Your task to perform on an android device: toggle javascript in the chrome app Image 0: 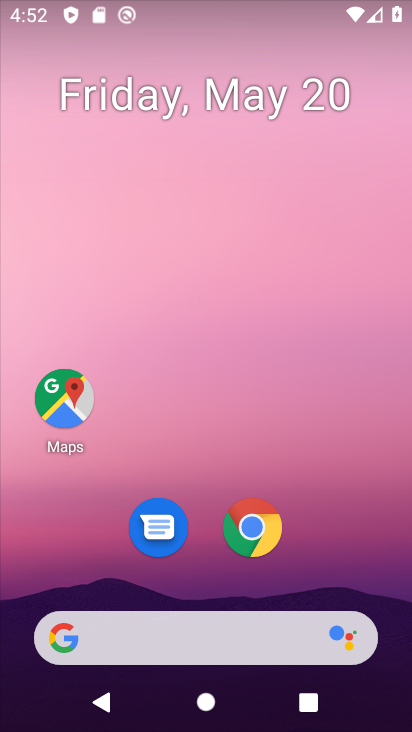
Step 0: drag from (324, 478) to (326, 198)
Your task to perform on an android device: toggle javascript in the chrome app Image 1: 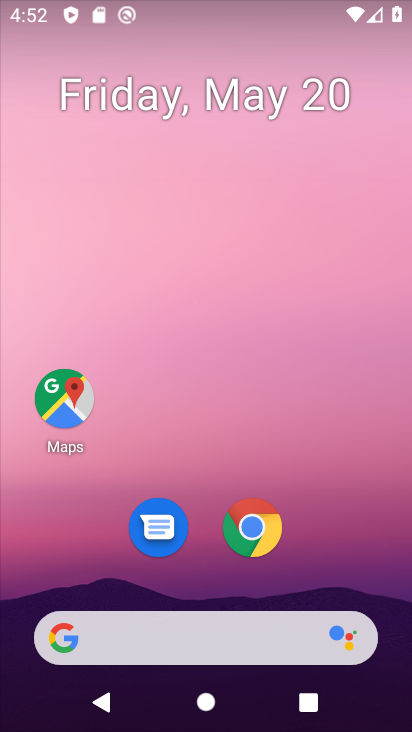
Step 1: drag from (336, 533) to (300, 14)
Your task to perform on an android device: toggle javascript in the chrome app Image 2: 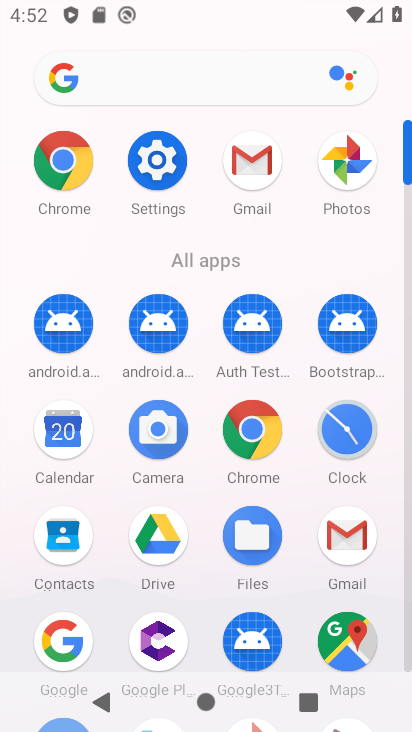
Step 2: click (255, 436)
Your task to perform on an android device: toggle javascript in the chrome app Image 3: 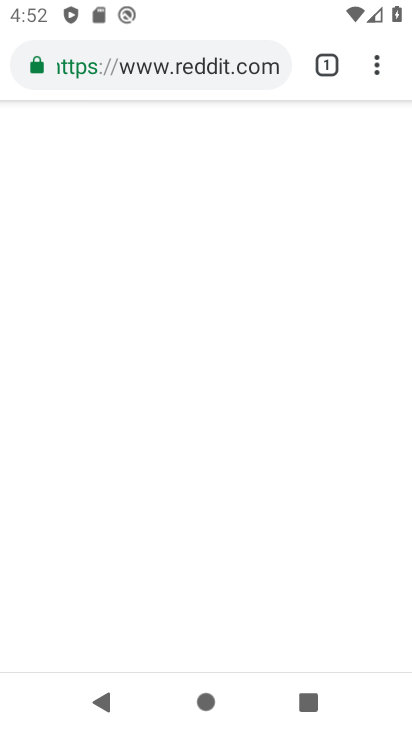
Step 3: click (377, 60)
Your task to perform on an android device: toggle javascript in the chrome app Image 4: 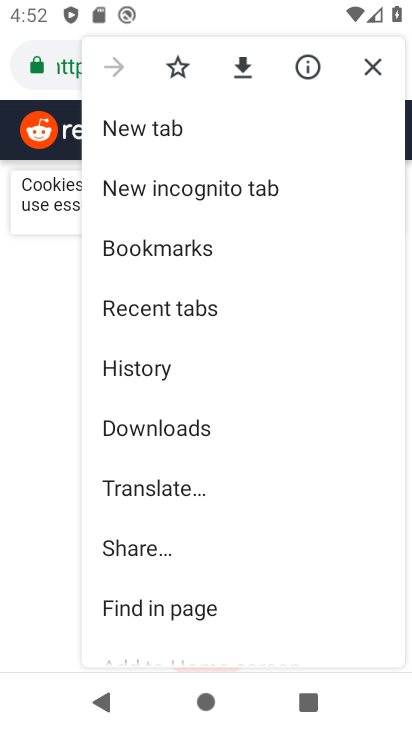
Step 4: drag from (242, 594) to (259, 123)
Your task to perform on an android device: toggle javascript in the chrome app Image 5: 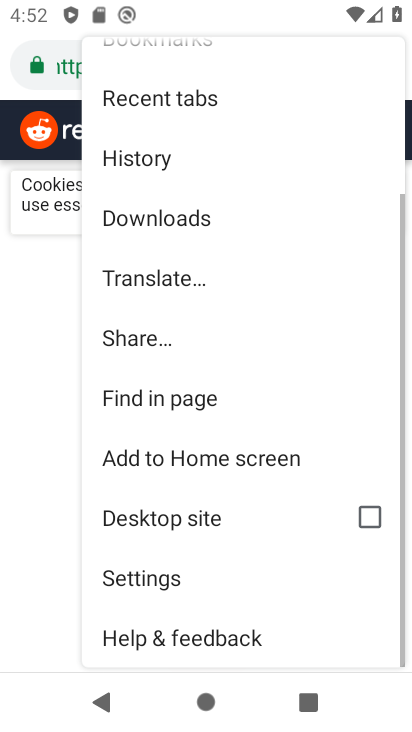
Step 5: click (225, 572)
Your task to perform on an android device: toggle javascript in the chrome app Image 6: 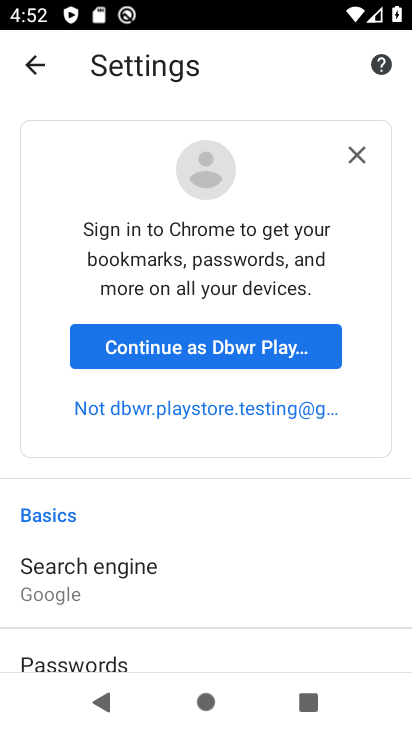
Step 6: drag from (168, 628) to (217, 44)
Your task to perform on an android device: toggle javascript in the chrome app Image 7: 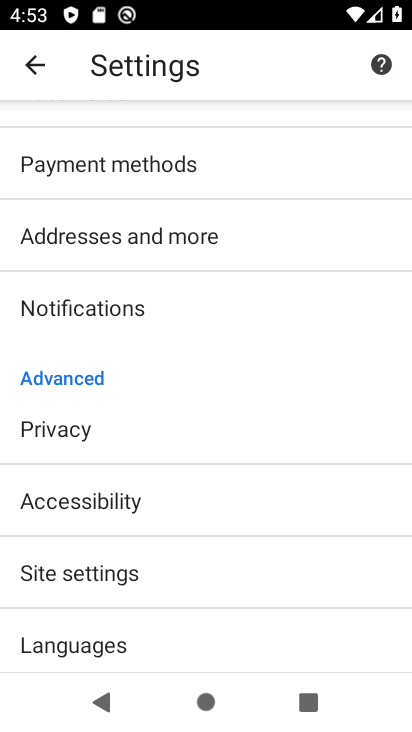
Step 7: click (145, 580)
Your task to perform on an android device: toggle javascript in the chrome app Image 8: 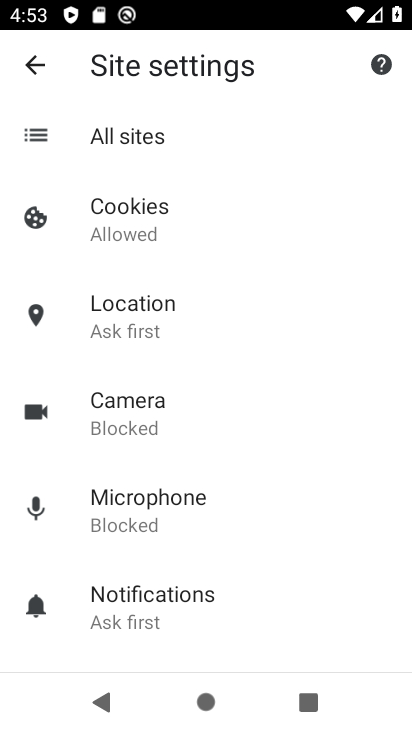
Step 8: drag from (145, 580) to (256, 145)
Your task to perform on an android device: toggle javascript in the chrome app Image 9: 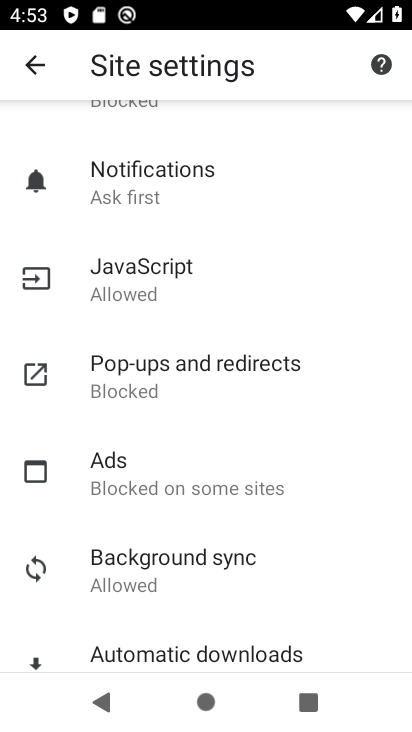
Step 9: click (187, 281)
Your task to perform on an android device: toggle javascript in the chrome app Image 10: 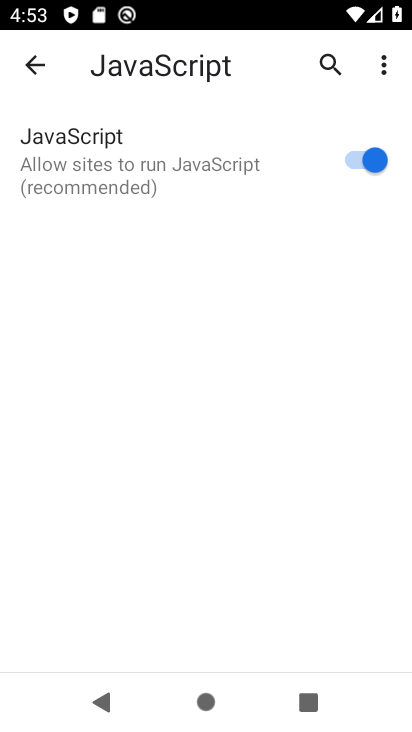
Step 10: click (358, 160)
Your task to perform on an android device: toggle javascript in the chrome app Image 11: 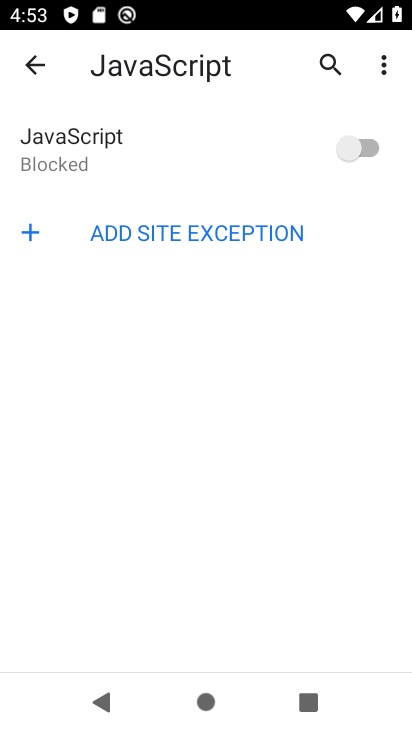
Step 11: task complete